Your task to perform on an android device: Open the map Image 0: 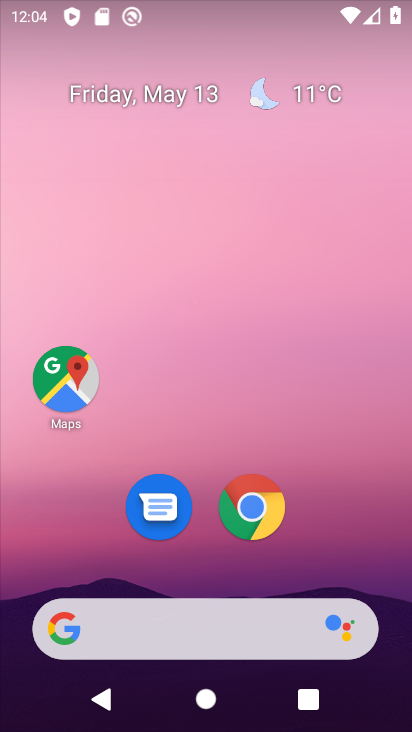
Step 0: click (58, 363)
Your task to perform on an android device: Open the map Image 1: 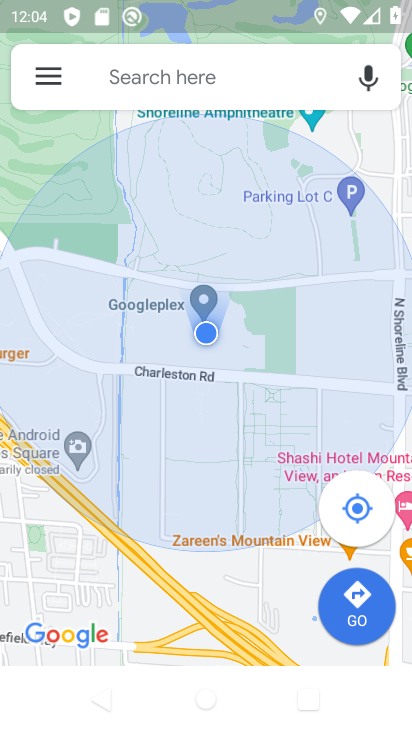
Step 1: task complete